Your task to perform on an android device: change alarm snooze length Image 0: 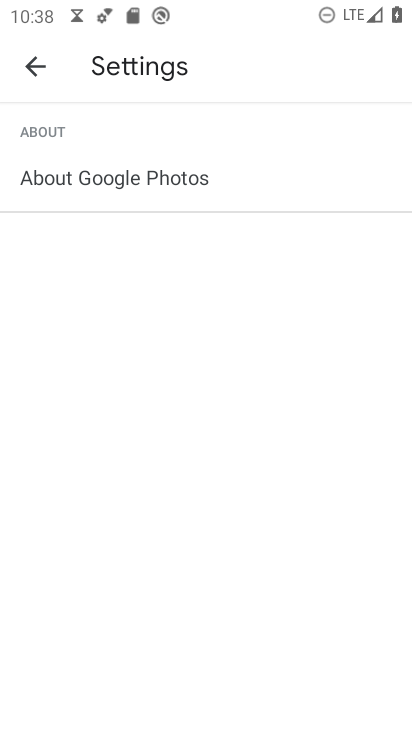
Step 0: press home button
Your task to perform on an android device: change alarm snooze length Image 1: 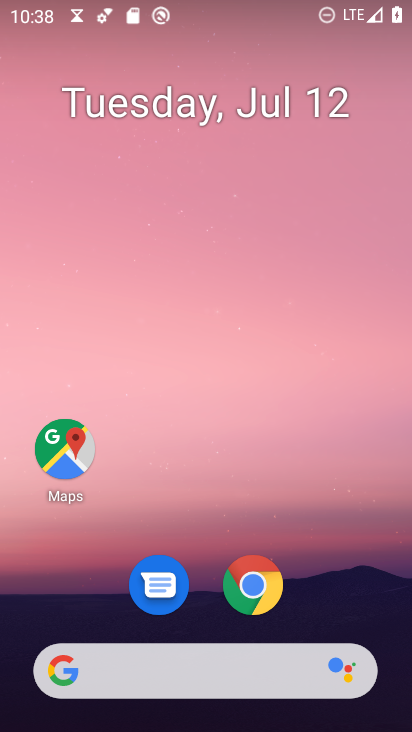
Step 1: drag from (206, 675) to (270, 136)
Your task to perform on an android device: change alarm snooze length Image 2: 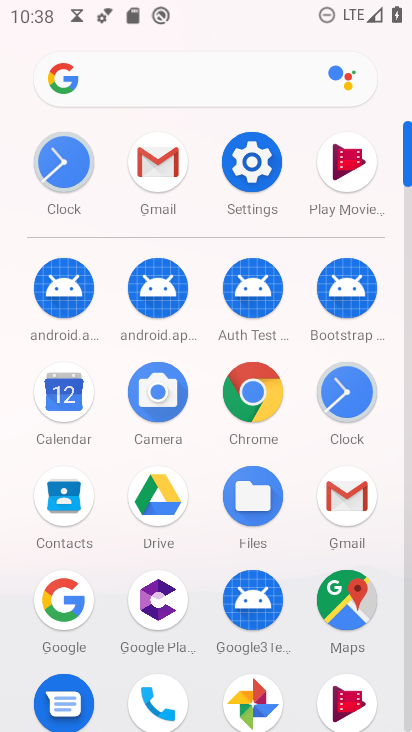
Step 2: click (347, 397)
Your task to perform on an android device: change alarm snooze length Image 3: 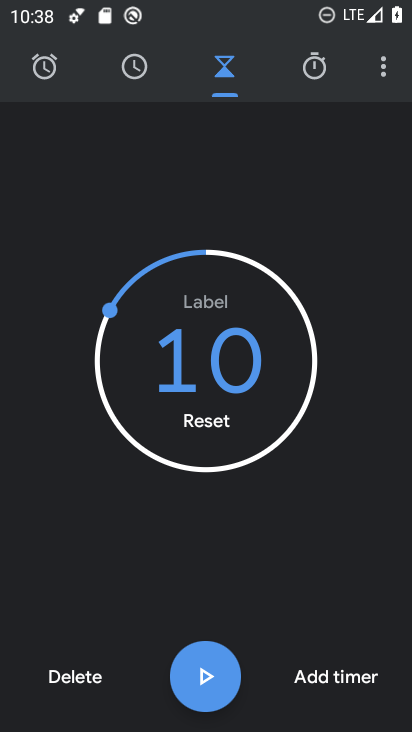
Step 3: click (384, 77)
Your task to perform on an android device: change alarm snooze length Image 4: 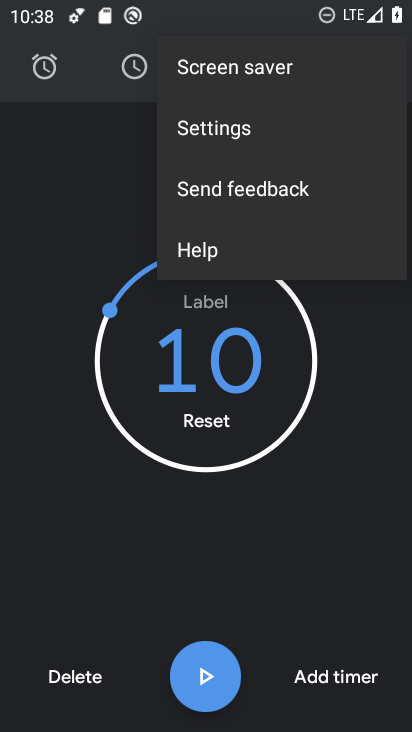
Step 4: click (249, 130)
Your task to perform on an android device: change alarm snooze length Image 5: 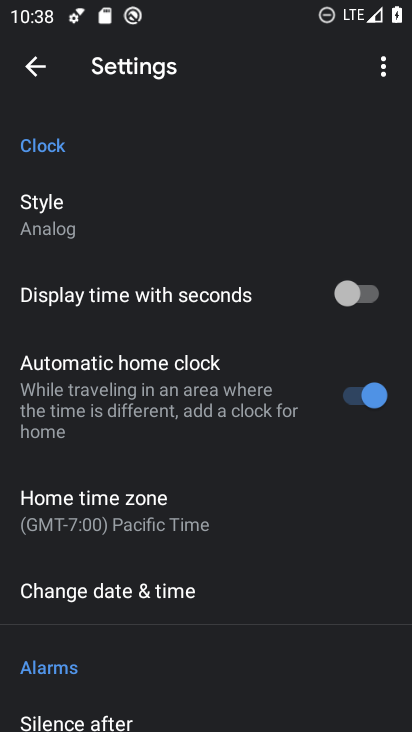
Step 5: drag from (140, 604) to (249, 152)
Your task to perform on an android device: change alarm snooze length Image 6: 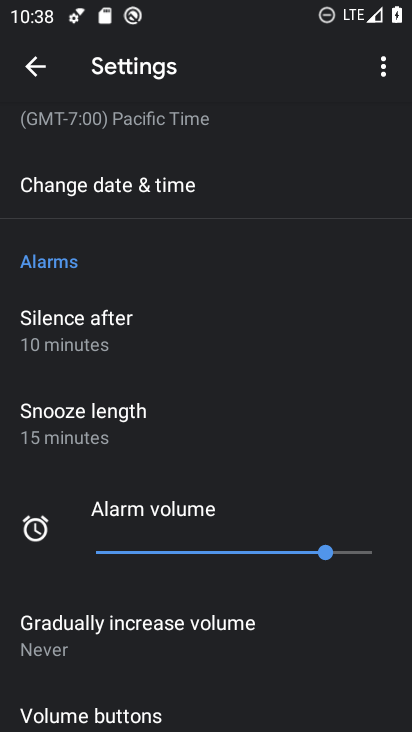
Step 6: click (122, 406)
Your task to perform on an android device: change alarm snooze length Image 7: 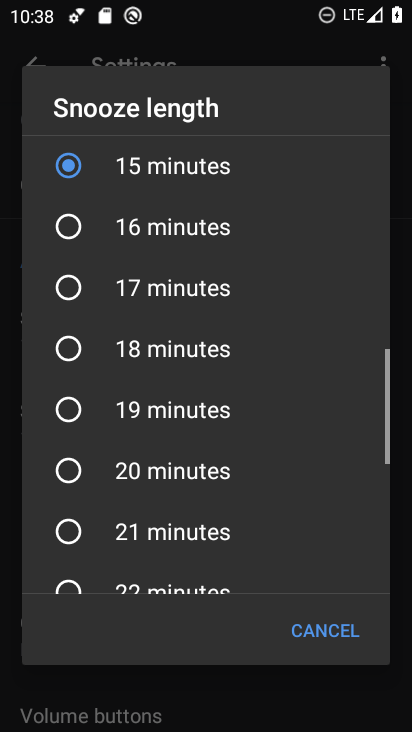
Step 7: drag from (177, 255) to (211, 497)
Your task to perform on an android device: change alarm snooze length Image 8: 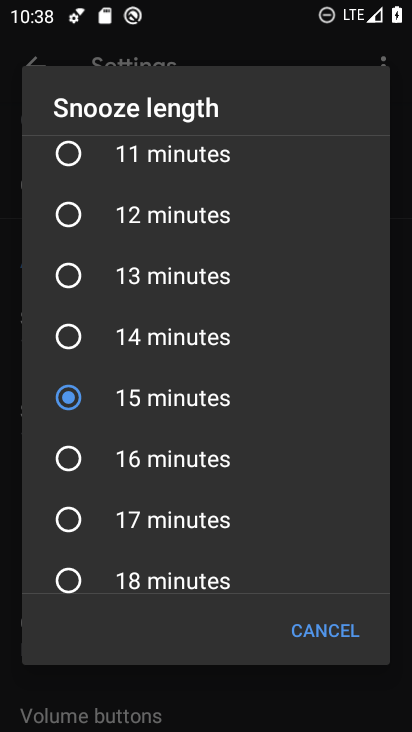
Step 8: drag from (172, 272) to (192, 452)
Your task to perform on an android device: change alarm snooze length Image 9: 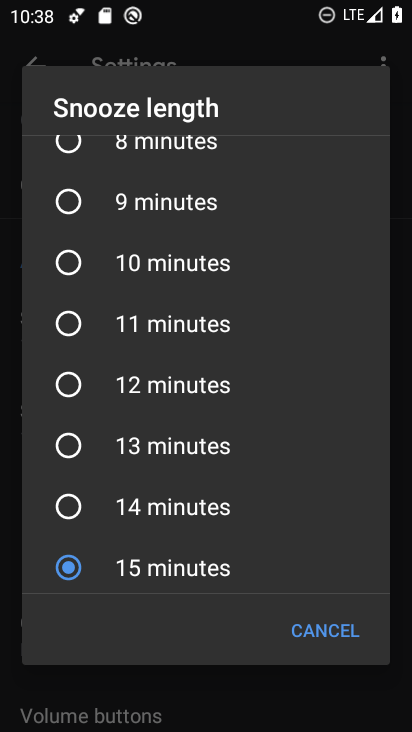
Step 9: click (73, 262)
Your task to perform on an android device: change alarm snooze length Image 10: 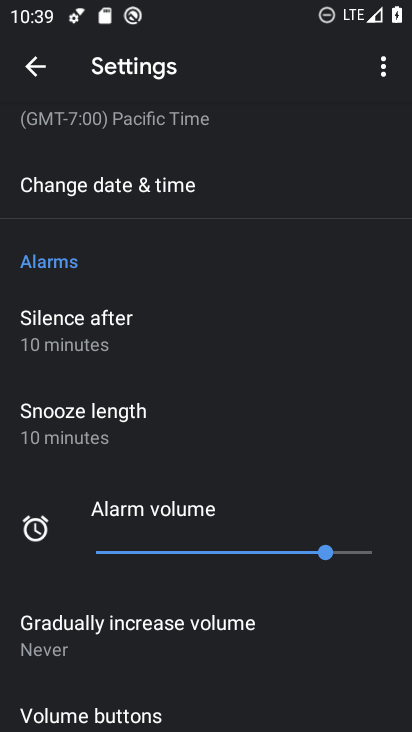
Step 10: task complete